Your task to perform on an android device: toggle location history Image 0: 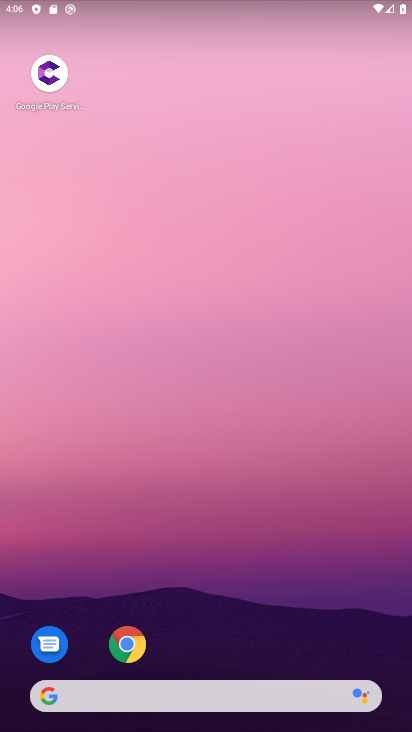
Step 0: drag from (231, 640) to (212, 84)
Your task to perform on an android device: toggle location history Image 1: 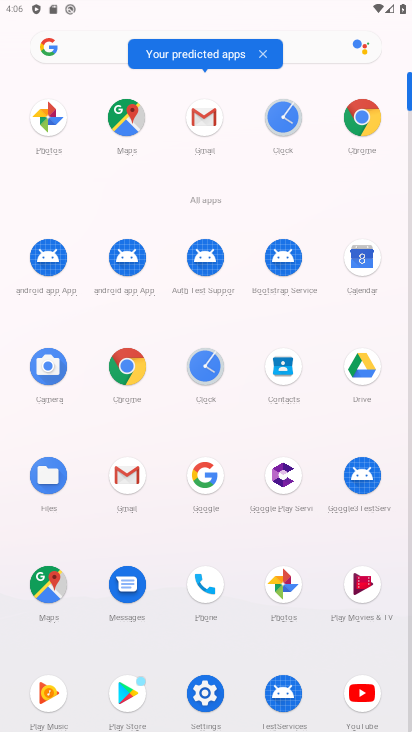
Step 1: click (196, 679)
Your task to perform on an android device: toggle location history Image 2: 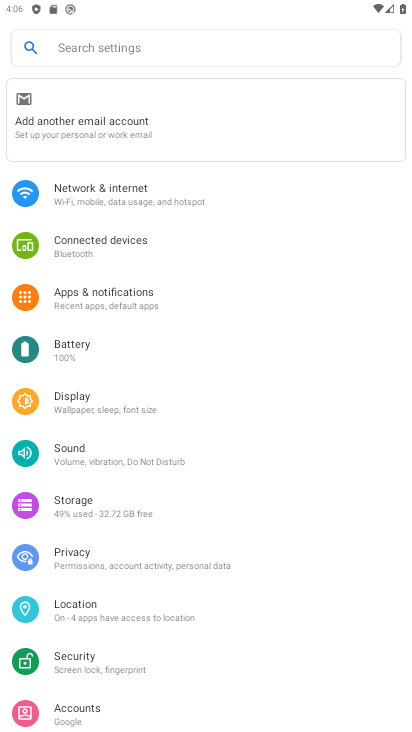
Step 2: click (122, 603)
Your task to perform on an android device: toggle location history Image 3: 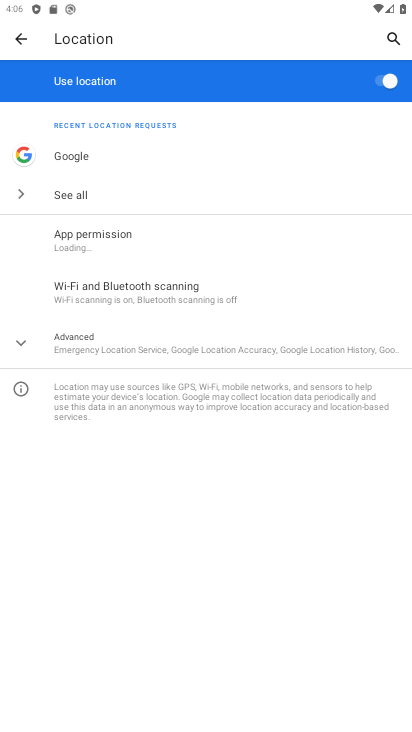
Step 3: click (106, 331)
Your task to perform on an android device: toggle location history Image 4: 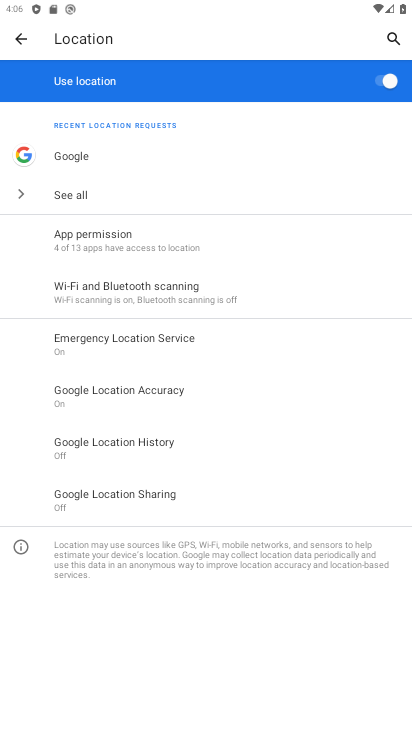
Step 4: click (165, 447)
Your task to perform on an android device: toggle location history Image 5: 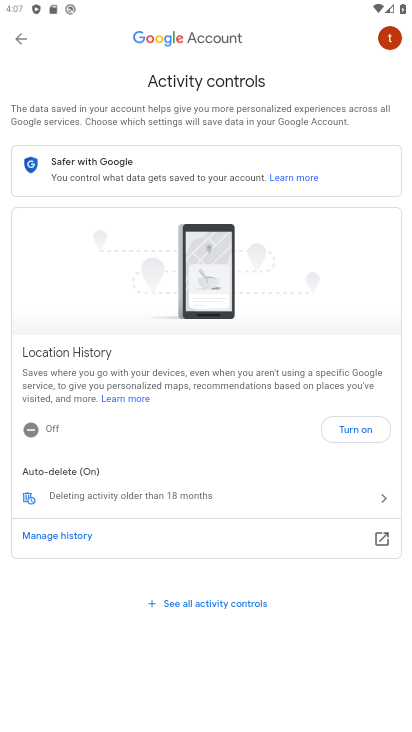
Step 5: click (348, 428)
Your task to perform on an android device: toggle location history Image 6: 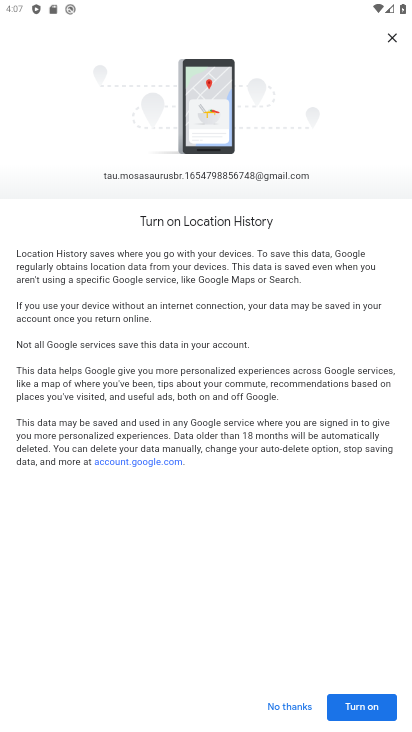
Step 6: click (358, 693)
Your task to perform on an android device: toggle location history Image 7: 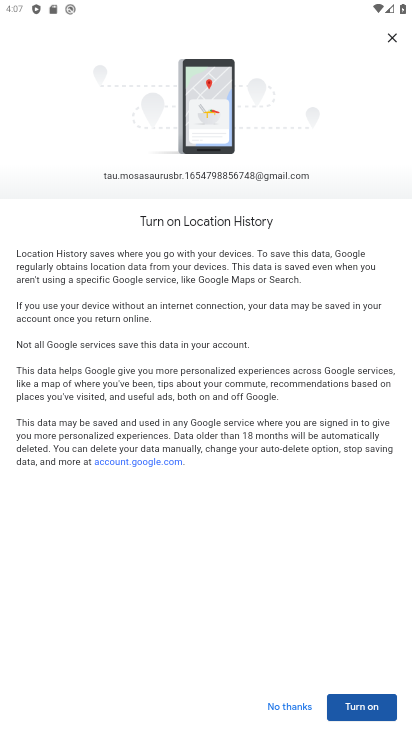
Step 7: click (372, 696)
Your task to perform on an android device: toggle location history Image 8: 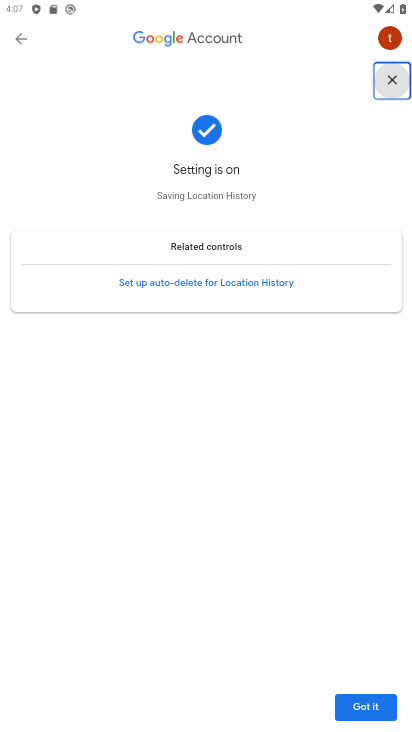
Step 8: task complete